Your task to perform on an android device: Show me productivity apps on the Play Store Image 0: 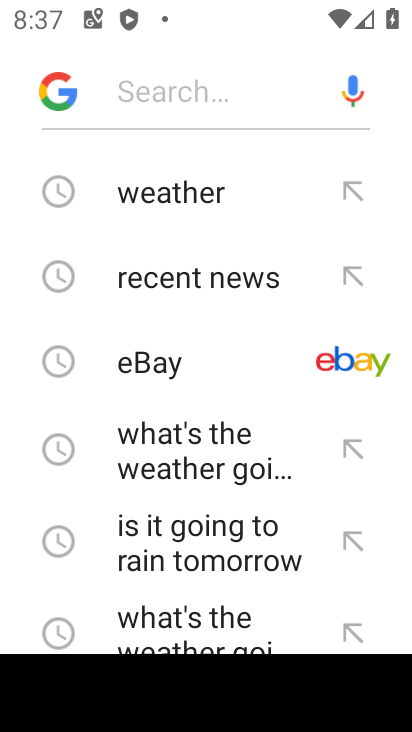
Step 0: press home button
Your task to perform on an android device: Show me productivity apps on the Play Store Image 1: 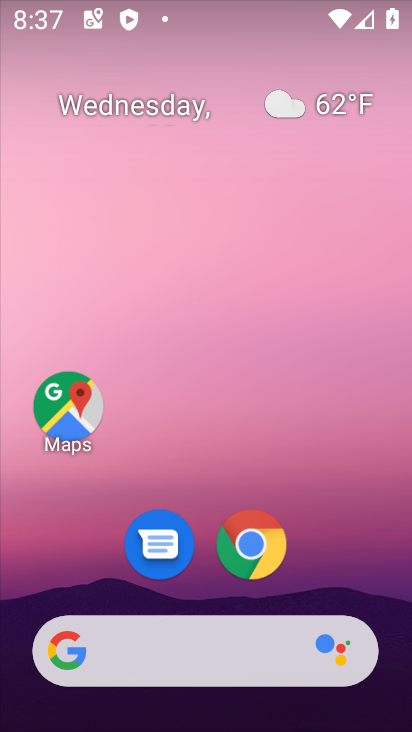
Step 1: drag from (215, 513) to (297, 15)
Your task to perform on an android device: Show me productivity apps on the Play Store Image 2: 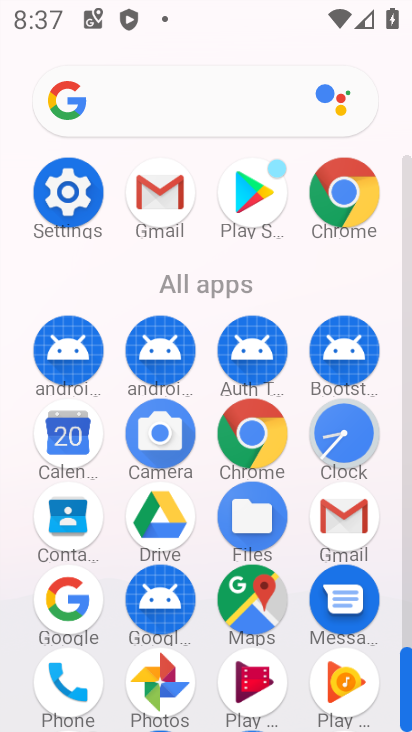
Step 2: click (256, 185)
Your task to perform on an android device: Show me productivity apps on the Play Store Image 3: 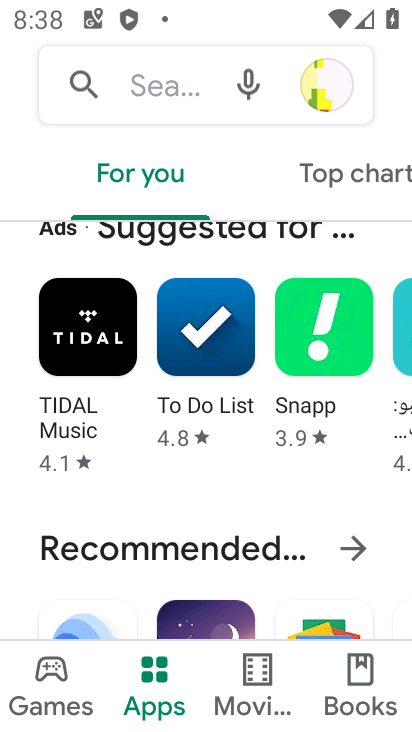
Step 3: drag from (187, 573) to (302, 162)
Your task to perform on an android device: Show me productivity apps on the Play Store Image 4: 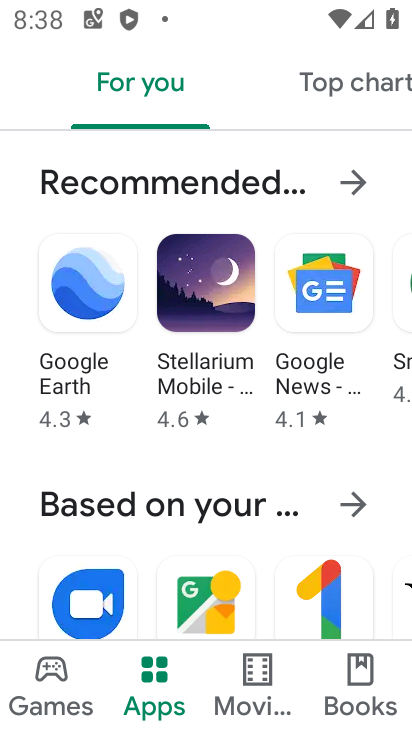
Step 4: drag from (292, 270) to (248, 620)
Your task to perform on an android device: Show me productivity apps on the Play Store Image 5: 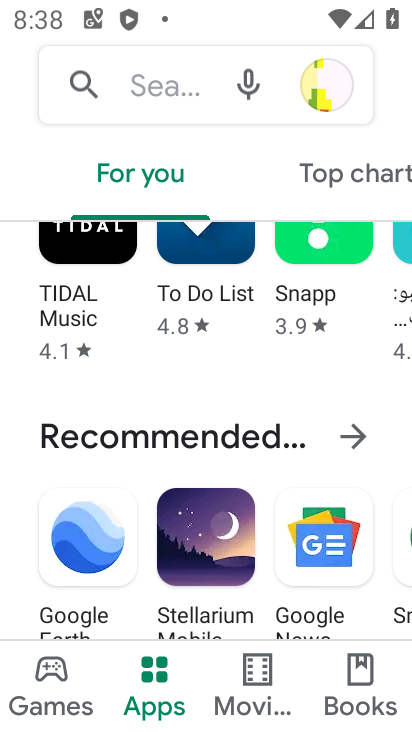
Step 5: click (339, 73)
Your task to perform on an android device: Show me productivity apps on the Play Store Image 6: 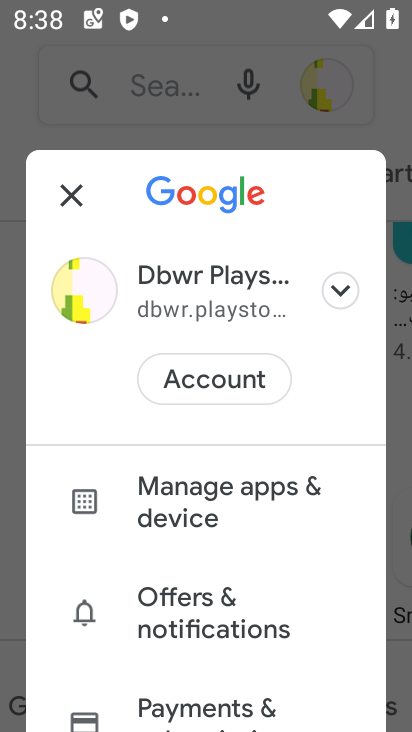
Step 6: drag from (190, 622) to (243, 710)
Your task to perform on an android device: Show me productivity apps on the Play Store Image 7: 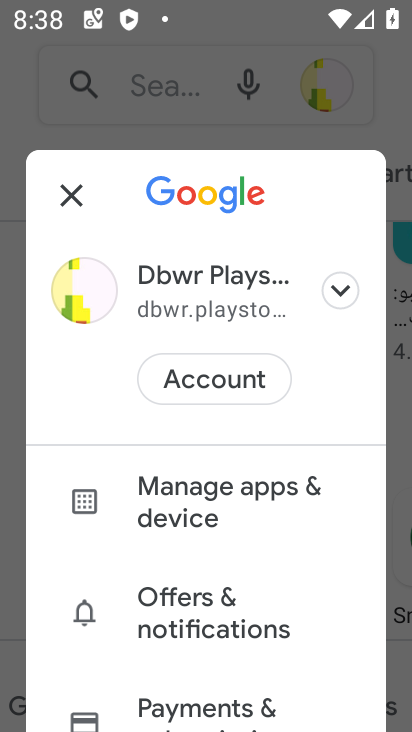
Step 7: click (141, 261)
Your task to perform on an android device: Show me productivity apps on the Play Store Image 8: 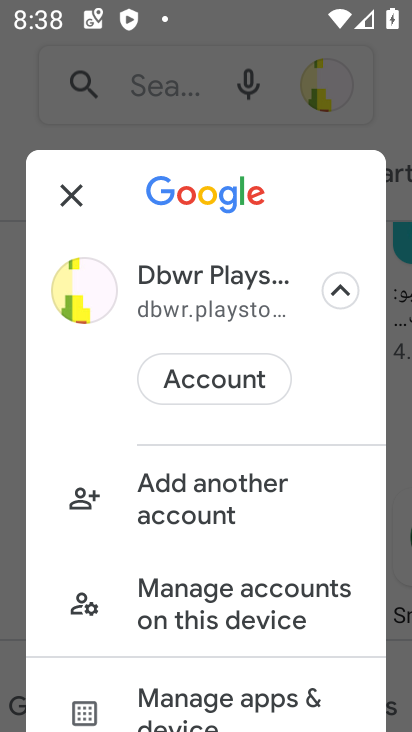
Step 8: click (63, 193)
Your task to perform on an android device: Show me productivity apps on the Play Store Image 9: 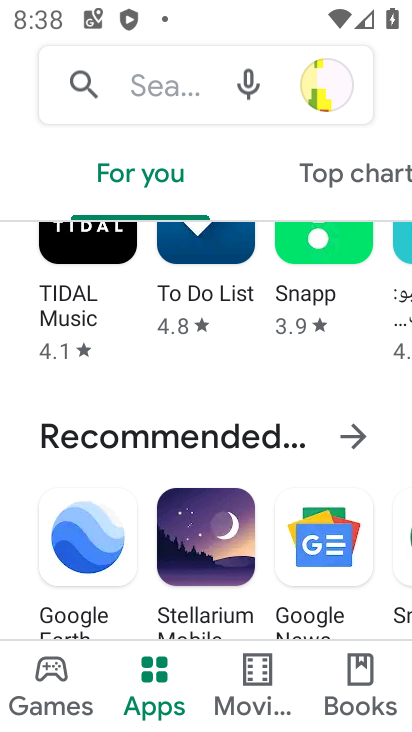
Step 9: task complete